Your task to perform on an android device: check battery use Image 0: 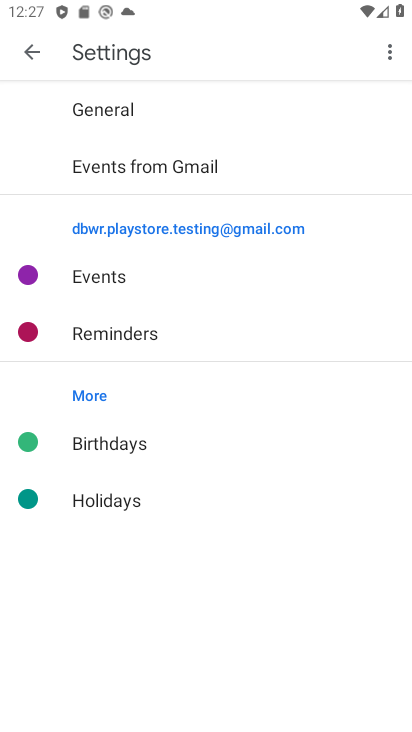
Step 0: press back button
Your task to perform on an android device: check battery use Image 1: 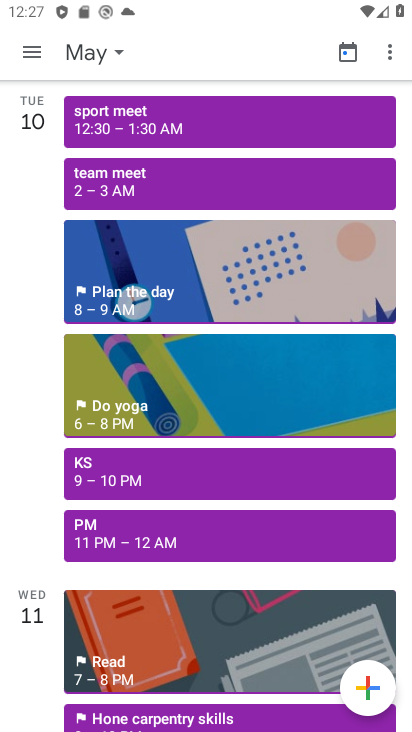
Step 1: press back button
Your task to perform on an android device: check battery use Image 2: 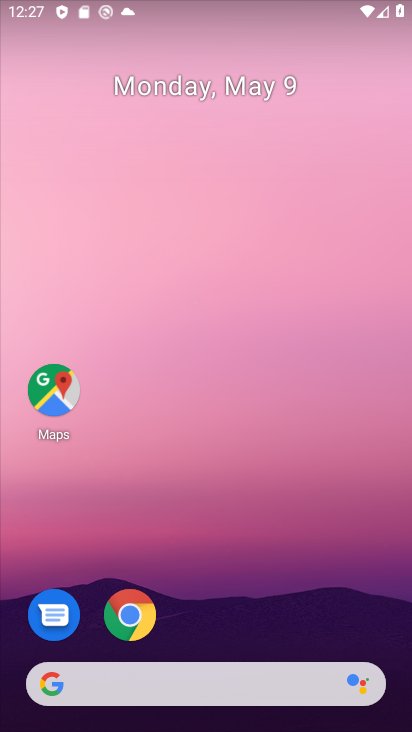
Step 2: drag from (269, 611) to (197, 145)
Your task to perform on an android device: check battery use Image 3: 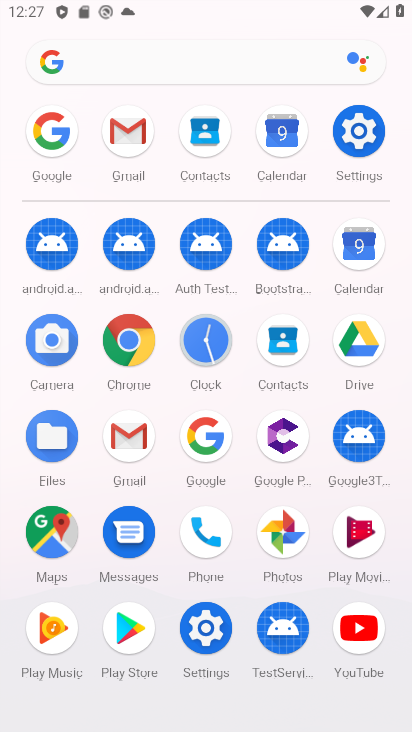
Step 3: click (360, 131)
Your task to perform on an android device: check battery use Image 4: 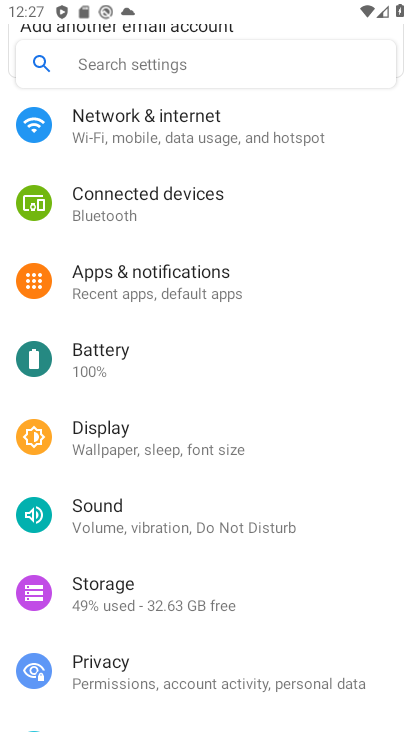
Step 4: click (120, 355)
Your task to perform on an android device: check battery use Image 5: 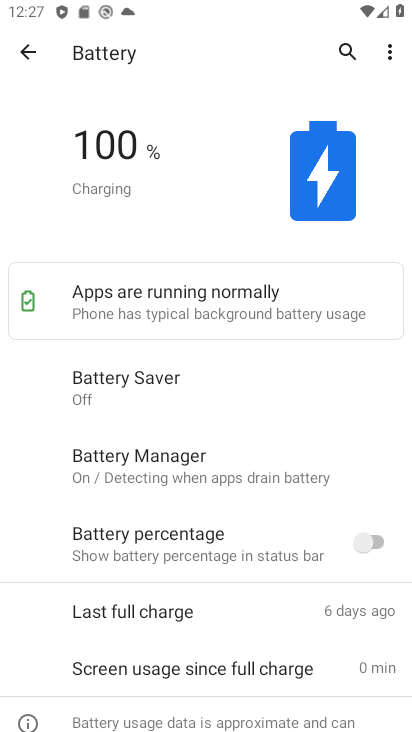
Step 5: click (391, 47)
Your task to perform on an android device: check battery use Image 6: 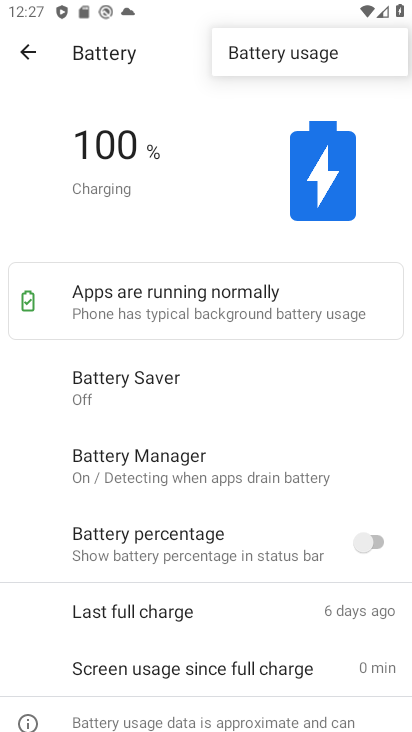
Step 6: click (320, 50)
Your task to perform on an android device: check battery use Image 7: 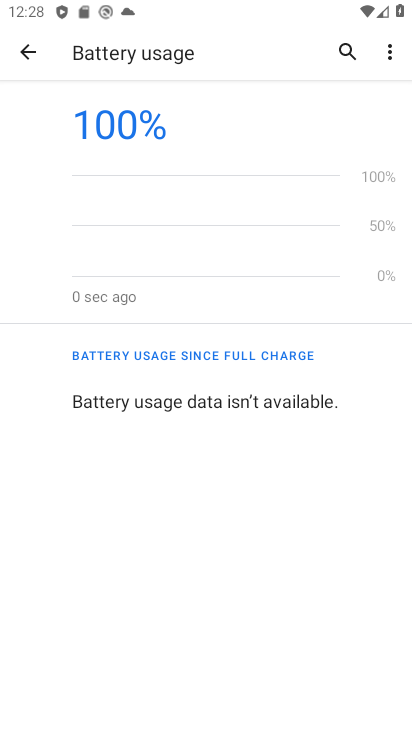
Step 7: task complete